Your task to perform on an android device: set default search engine in the chrome app Image 0: 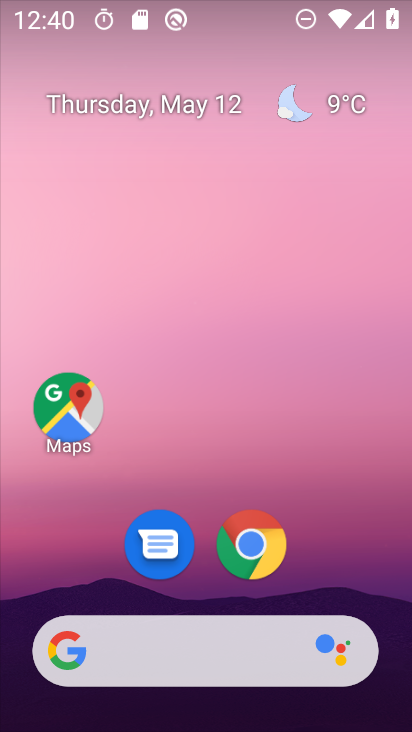
Step 0: click (252, 544)
Your task to perform on an android device: set default search engine in the chrome app Image 1: 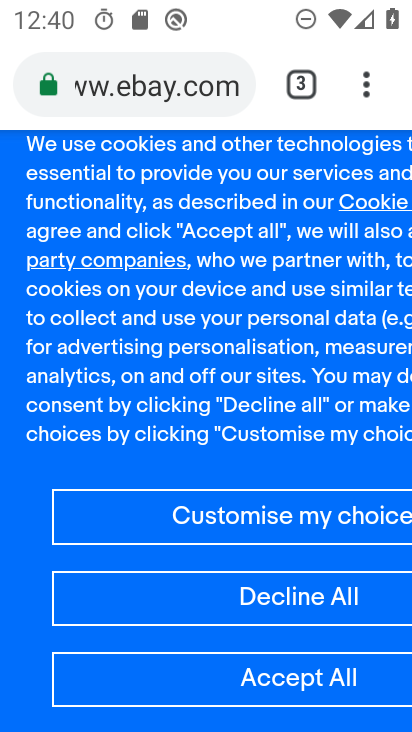
Step 1: click (368, 93)
Your task to perform on an android device: set default search engine in the chrome app Image 2: 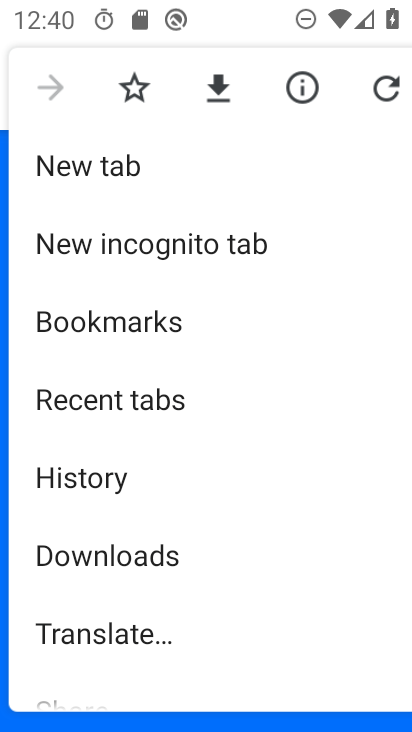
Step 2: drag from (111, 608) to (114, 212)
Your task to perform on an android device: set default search engine in the chrome app Image 3: 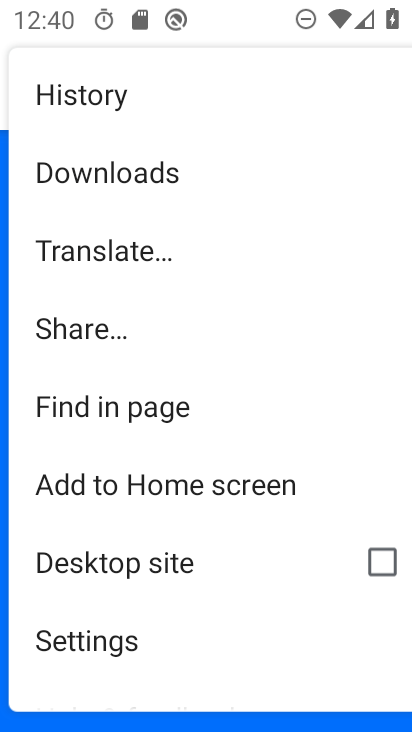
Step 3: click (109, 642)
Your task to perform on an android device: set default search engine in the chrome app Image 4: 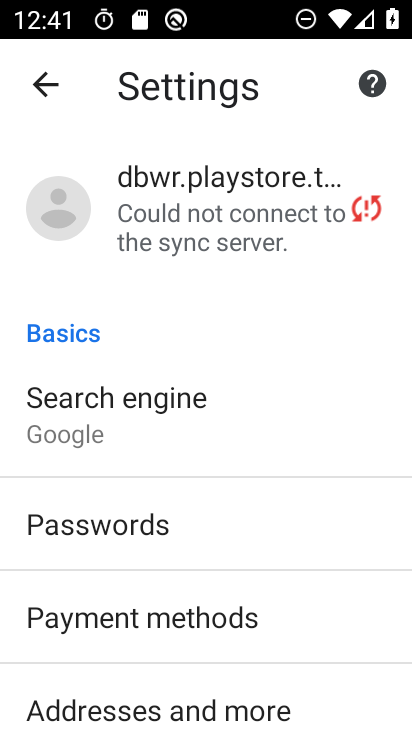
Step 4: click (83, 423)
Your task to perform on an android device: set default search engine in the chrome app Image 5: 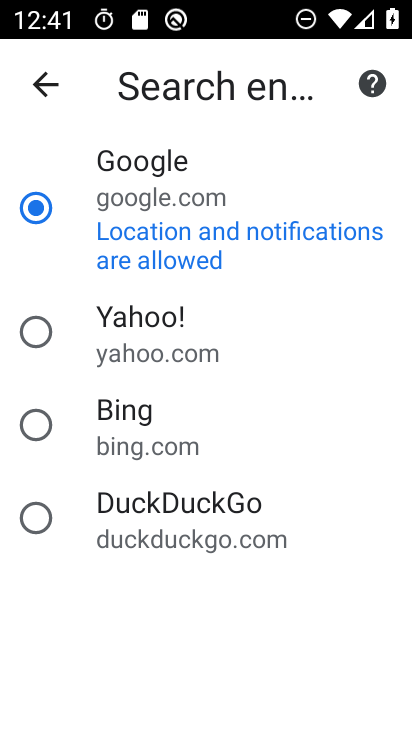
Step 5: click (34, 319)
Your task to perform on an android device: set default search engine in the chrome app Image 6: 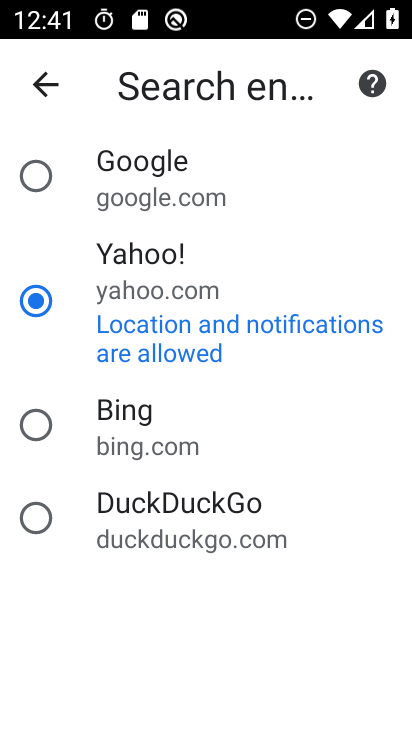
Step 6: task complete